Your task to perform on an android device: turn off priority inbox in the gmail app Image 0: 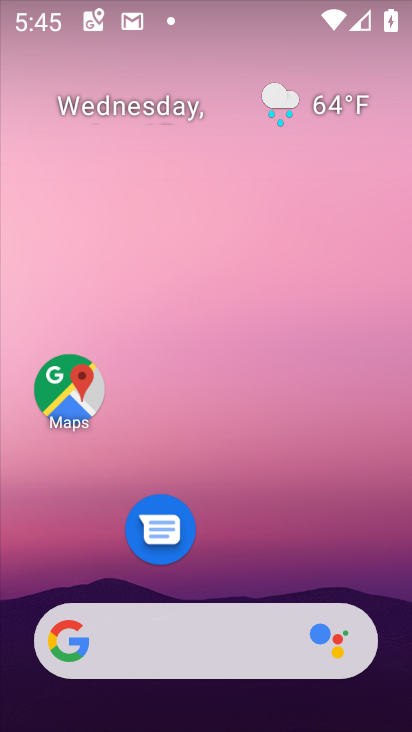
Step 0: drag from (215, 553) to (197, 2)
Your task to perform on an android device: turn off priority inbox in the gmail app Image 1: 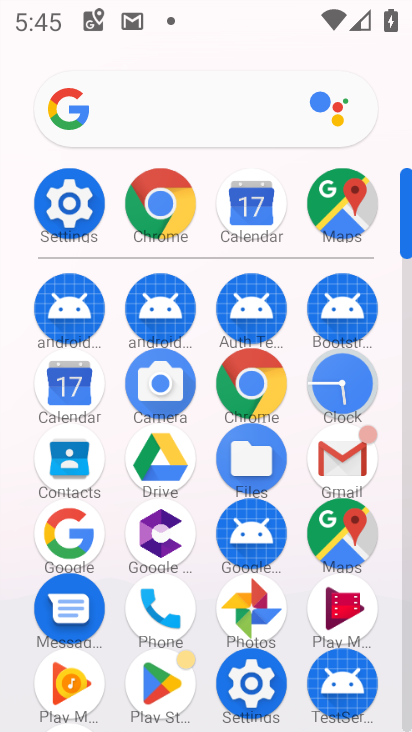
Step 1: click (349, 445)
Your task to perform on an android device: turn off priority inbox in the gmail app Image 2: 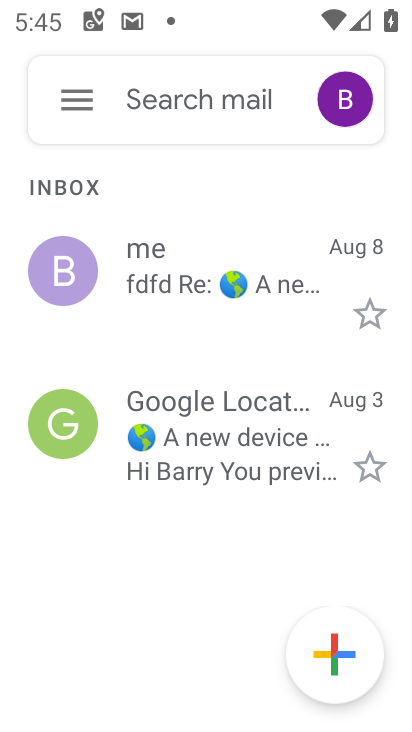
Step 2: click (72, 97)
Your task to perform on an android device: turn off priority inbox in the gmail app Image 3: 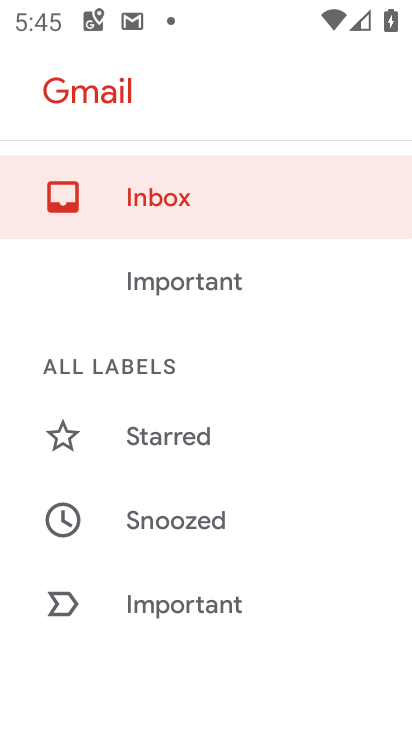
Step 3: drag from (139, 654) to (174, 318)
Your task to perform on an android device: turn off priority inbox in the gmail app Image 4: 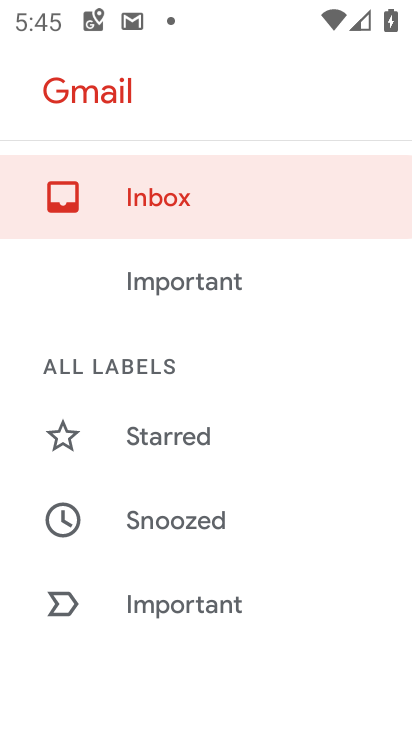
Step 4: click (273, 314)
Your task to perform on an android device: turn off priority inbox in the gmail app Image 5: 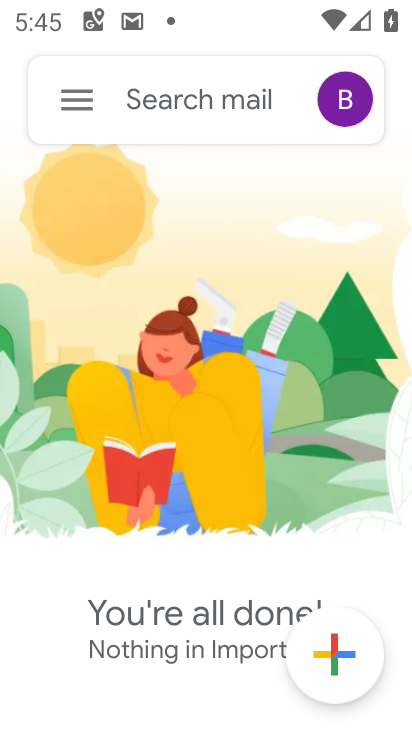
Step 5: click (81, 91)
Your task to perform on an android device: turn off priority inbox in the gmail app Image 6: 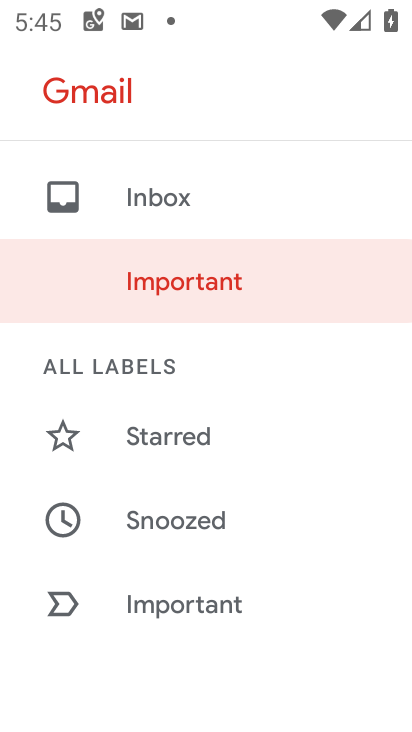
Step 6: drag from (219, 540) to (209, 271)
Your task to perform on an android device: turn off priority inbox in the gmail app Image 7: 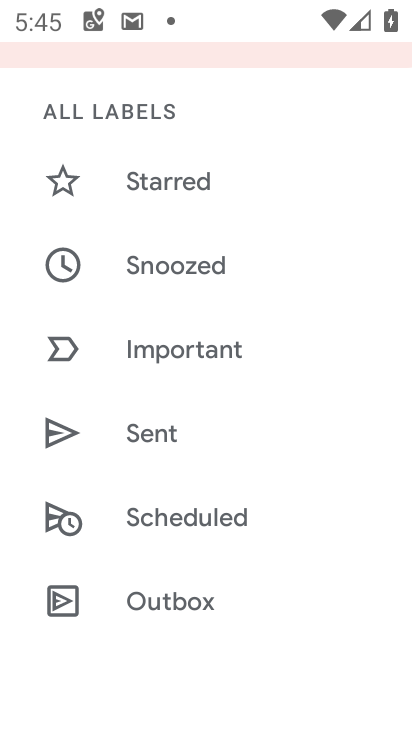
Step 7: drag from (167, 481) to (175, 306)
Your task to perform on an android device: turn off priority inbox in the gmail app Image 8: 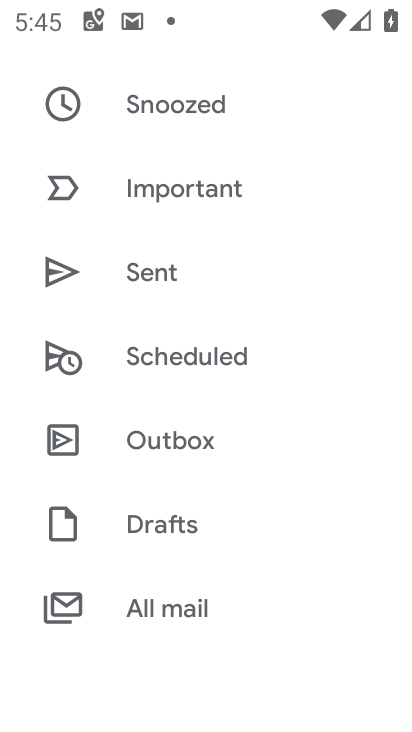
Step 8: drag from (167, 555) to (167, 191)
Your task to perform on an android device: turn off priority inbox in the gmail app Image 9: 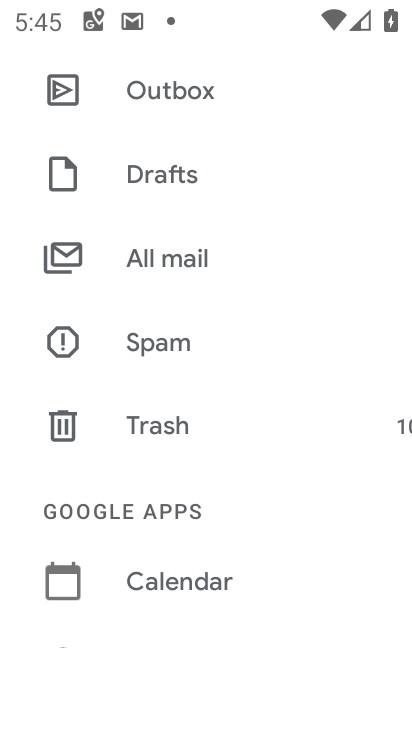
Step 9: drag from (180, 393) to (208, 169)
Your task to perform on an android device: turn off priority inbox in the gmail app Image 10: 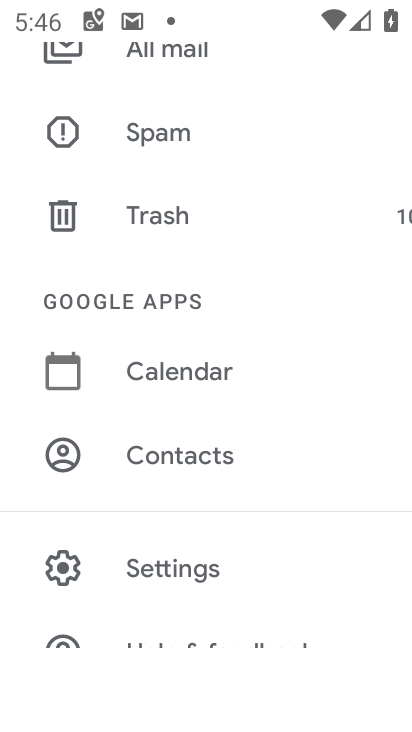
Step 10: click (173, 574)
Your task to perform on an android device: turn off priority inbox in the gmail app Image 11: 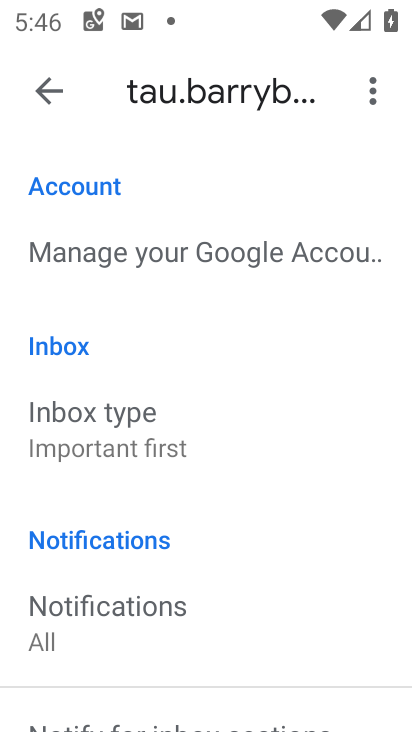
Step 11: click (129, 454)
Your task to perform on an android device: turn off priority inbox in the gmail app Image 12: 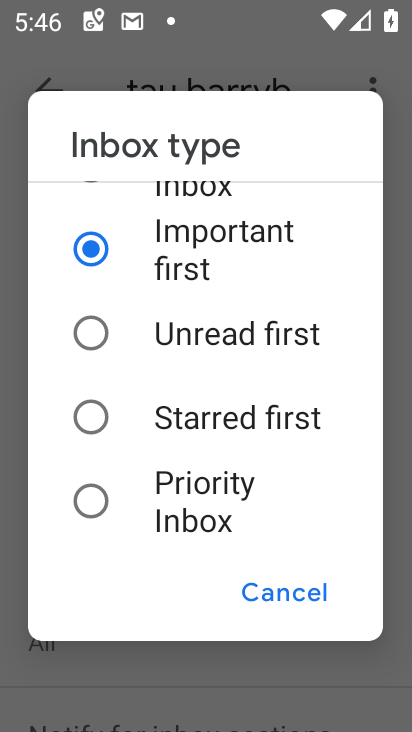
Step 12: click (83, 502)
Your task to perform on an android device: turn off priority inbox in the gmail app Image 13: 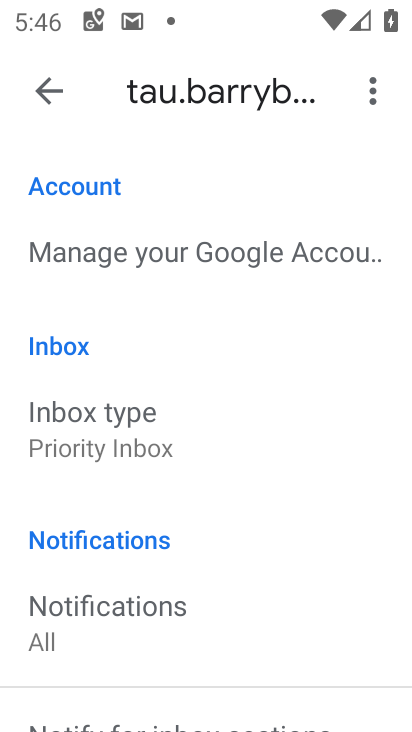
Step 13: click (82, 426)
Your task to perform on an android device: turn off priority inbox in the gmail app Image 14: 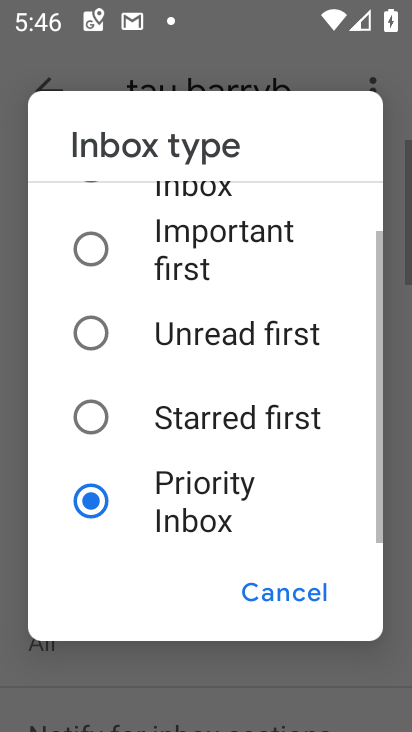
Step 14: click (82, 426)
Your task to perform on an android device: turn off priority inbox in the gmail app Image 15: 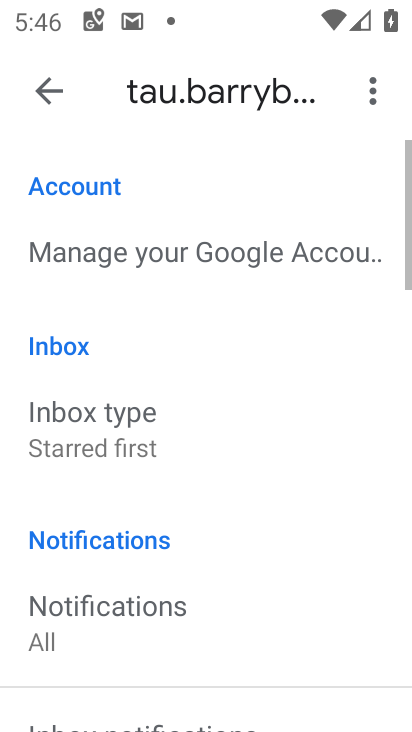
Step 15: task complete